Your task to perform on an android device: Find coffee shops on Maps Image 0: 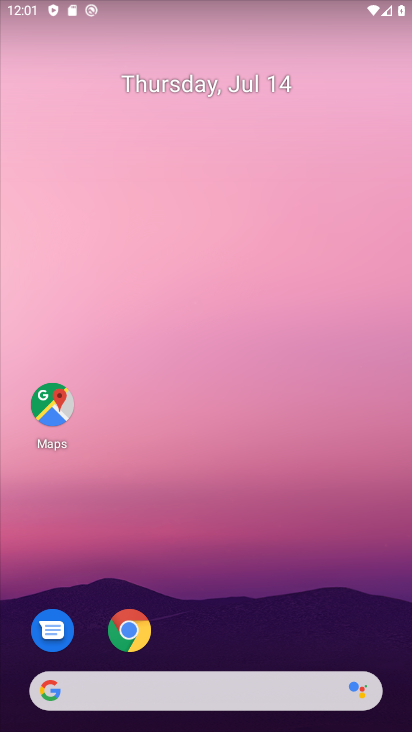
Step 0: drag from (232, 578) to (297, 162)
Your task to perform on an android device: Find coffee shops on Maps Image 1: 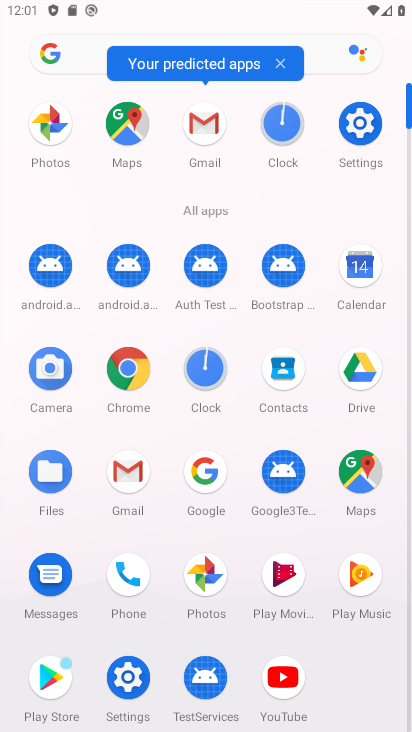
Step 1: click (354, 466)
Your task to perform on an android device: Find coffee shops on Maps Image 2: 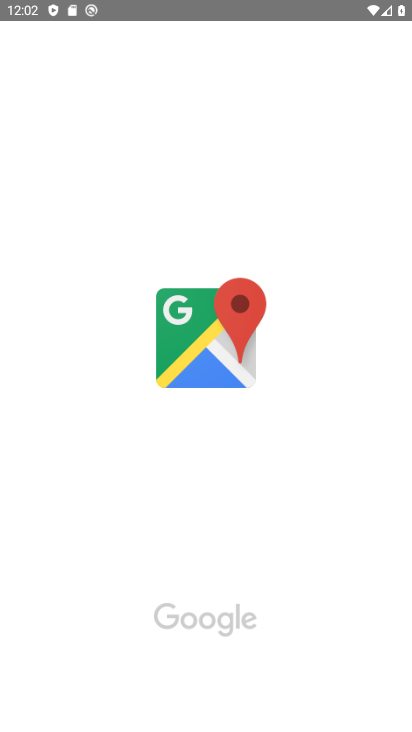
Step 2: task complete